Your task to perform on an android device: delete a single message in the gmail app Image 0: 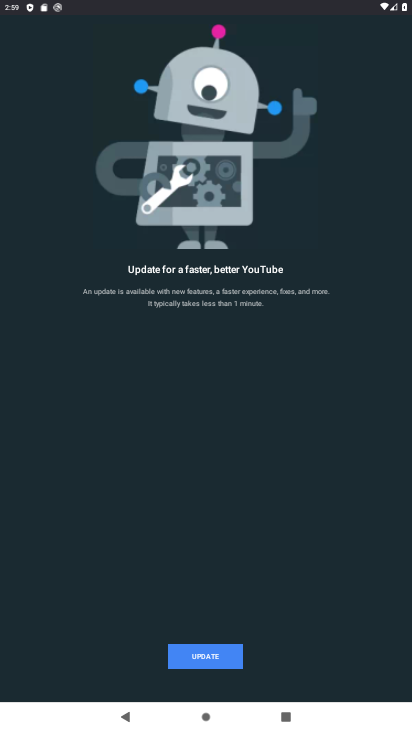
Step 0: press home button
Your task to perform on an android device: delete a single message in the gmail app Image 1: 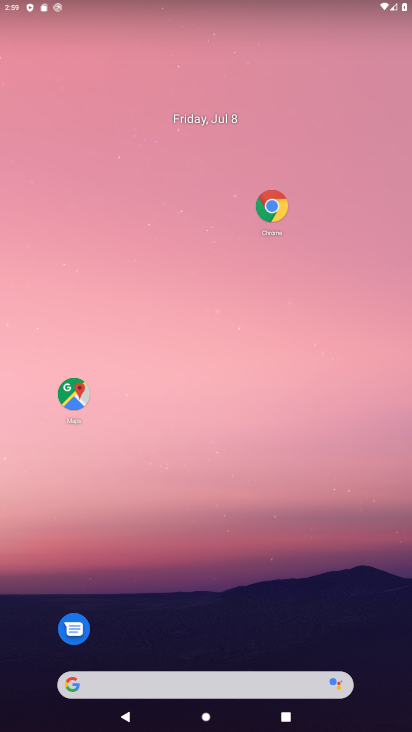
Step 1: drag from (186, 570) to (185, 269)
Your task to perform on an android device: delete a single message in the gmail app Image 2: 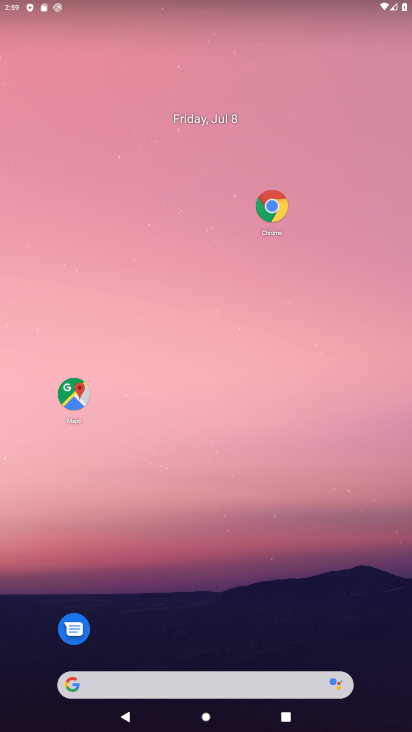
Step 2: drag from (184, 642) to (214, 458)
Your task to perform on an android device: delete a single message in the gmail app Image 3: 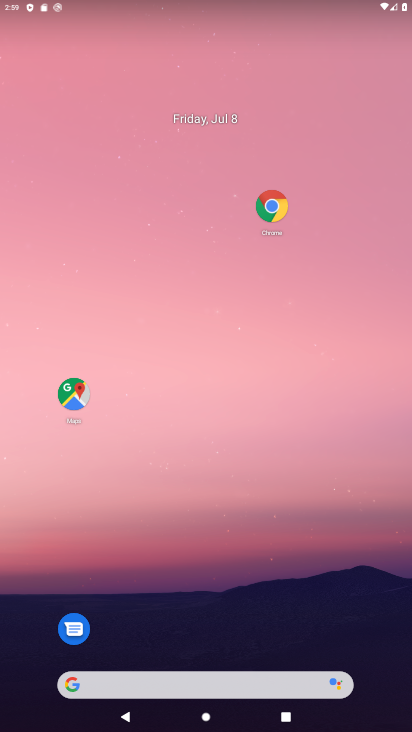
Step 3: click (182, 57)
Your task to perform on an android device: delete a single message in the gmail app Image 4: 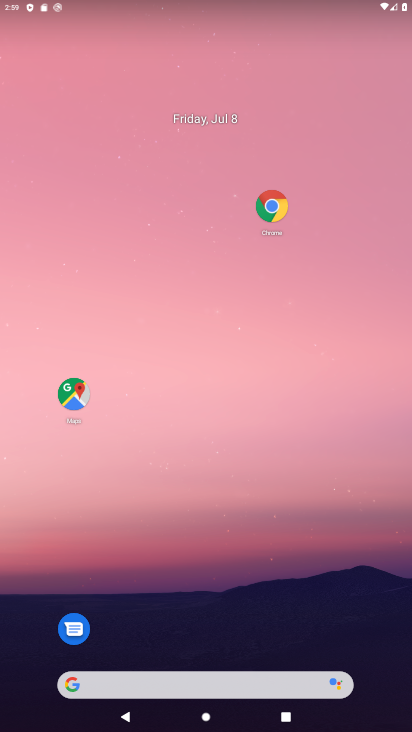
Step 4: drag from (237, 661) to (291, 176)
Your task to perform on an android device: delete a single message in the gmail app Image 5: 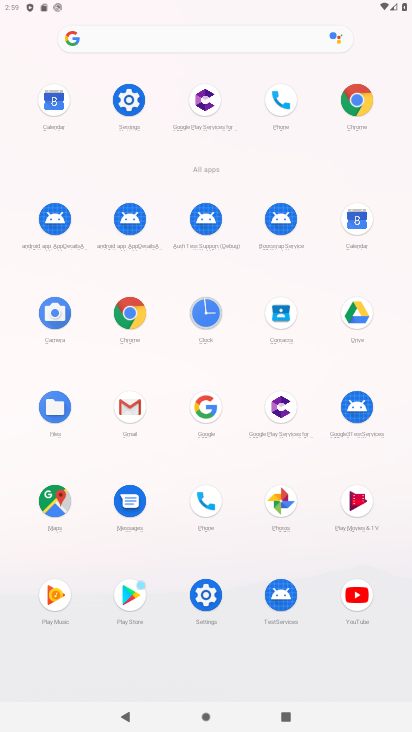
Step 5: click (136, 413)
Your task to perform on an android device: delete a single message in the gmail app Image 6: 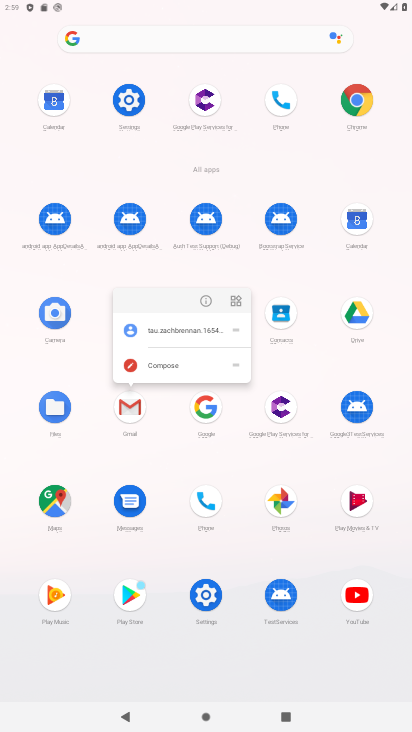
Step 6: click (208, 294)
Your task to perform on an android device: delete a single message in the gmail app Image 7: 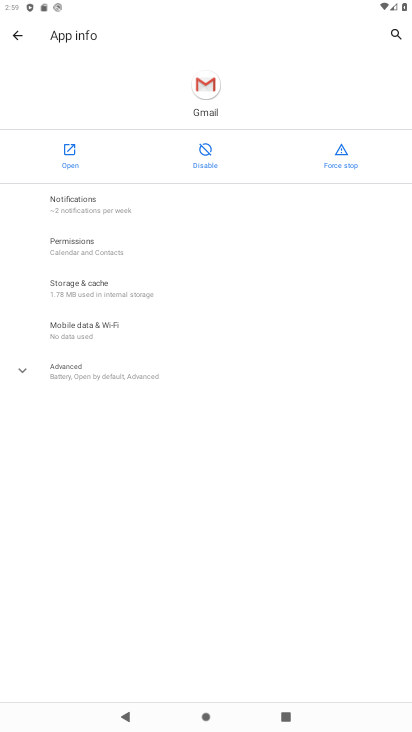
Step 7: click (69, 160)
Your task to perform on an android device: delete a single message in the gmail app Image 8: 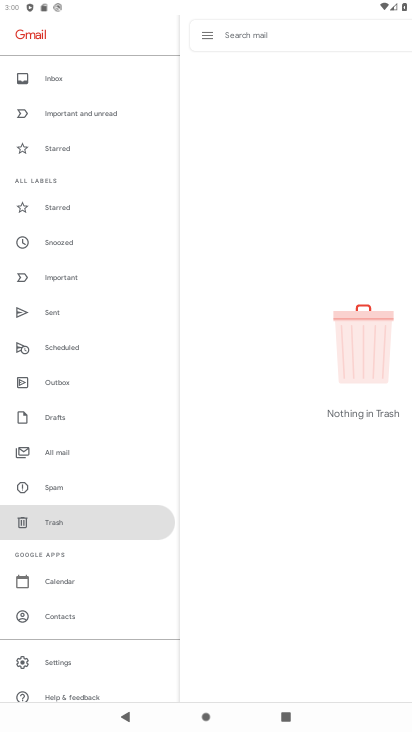
Step 8: click (96, 93)
Your task to perform on an android device: delete a single message in the gmail app Image 9: 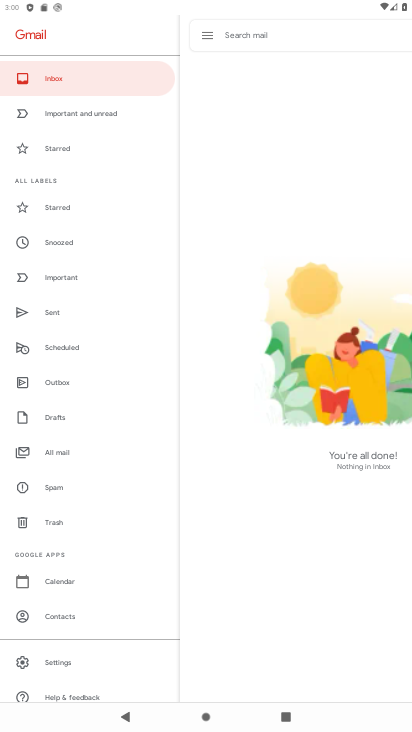
Step 9: task complete